Your task to perform on an android device: What's the weather going to be tomorrow? Image 0: 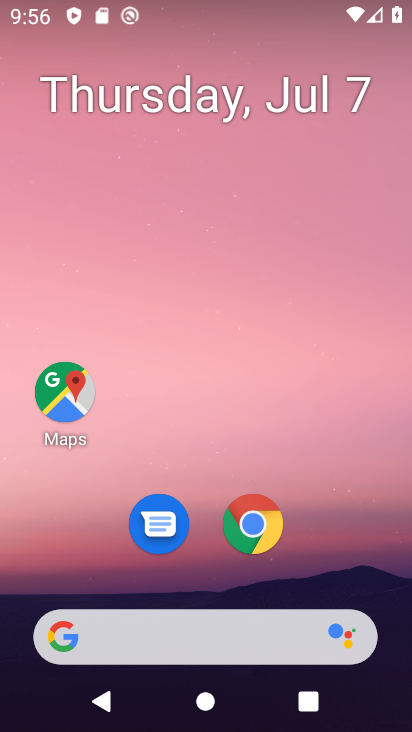
Step 0: click (184, 646)
Your task to perform on an android device: What's the weather going to be tomorrow? Image 1: 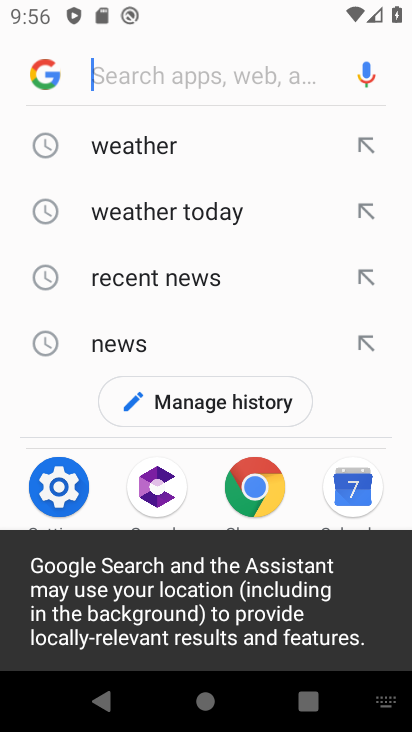
Step 1: click (98, 139)
Your task to perform on an android device: What's the weather going to be tomorrow? Image 2: 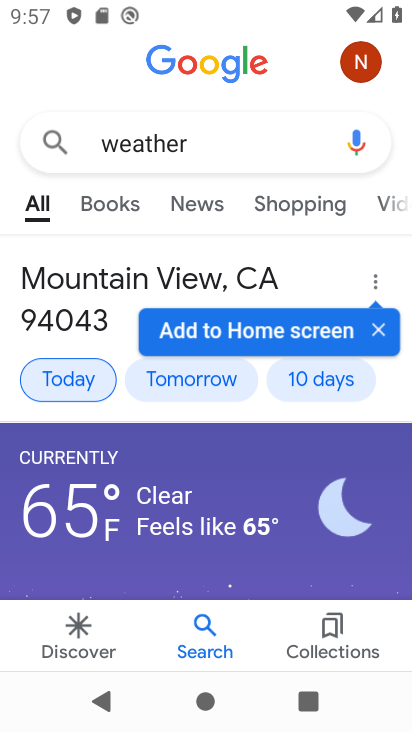
Step 2: click (71, 376)
Your task to perform on an android device: What's the weather going to be tomorrow? Image 3: 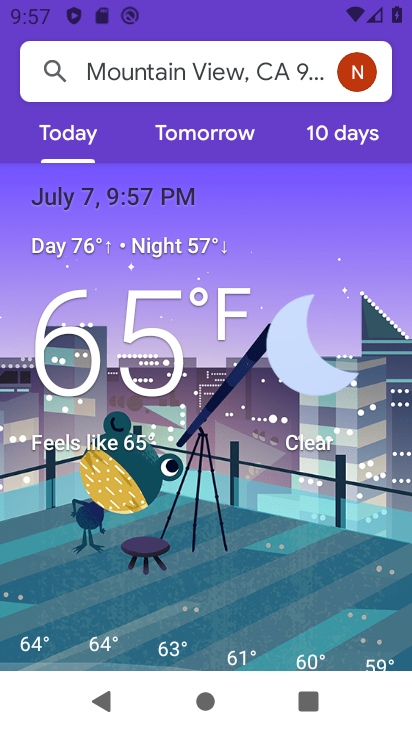
Step 3: click (226, 132)
Your task to perform on an android device: What's the weather going to be tomorrow? Image 4: 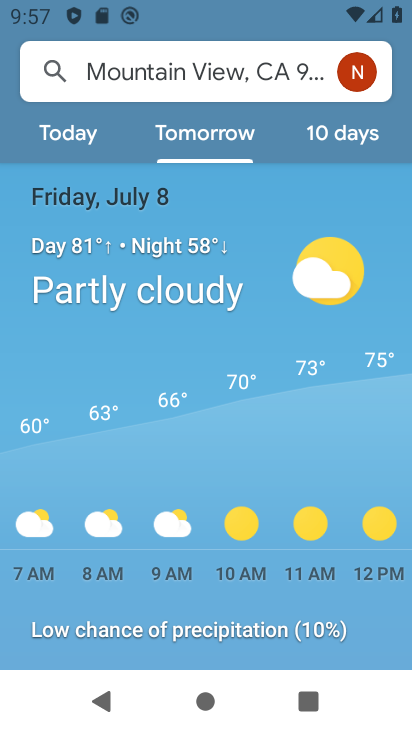
Step 4: task complete